Your task to perform on an android device: clear all cookies in the chrome app Image 0: 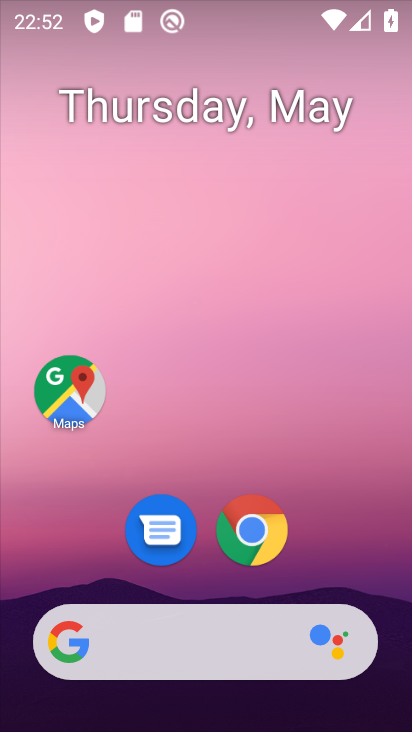
Step 0: click (254, 530)
Your task to perform on an android device: clear all cookies in the chrome app Image 1: 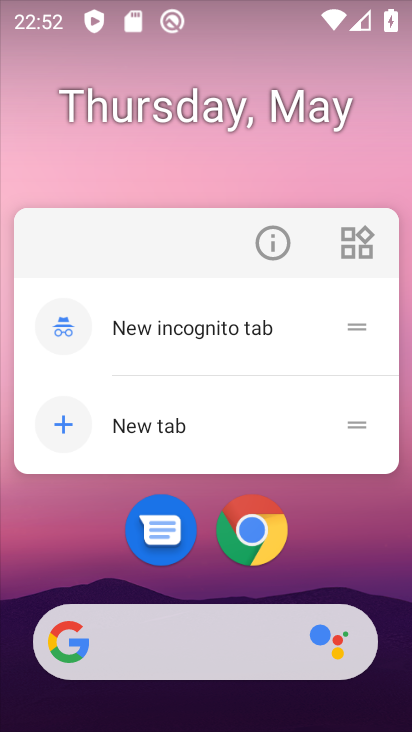
Step 1: click (254, 530)
Your task to perform on an android device: clear all cookies in the chrome app Image 2: 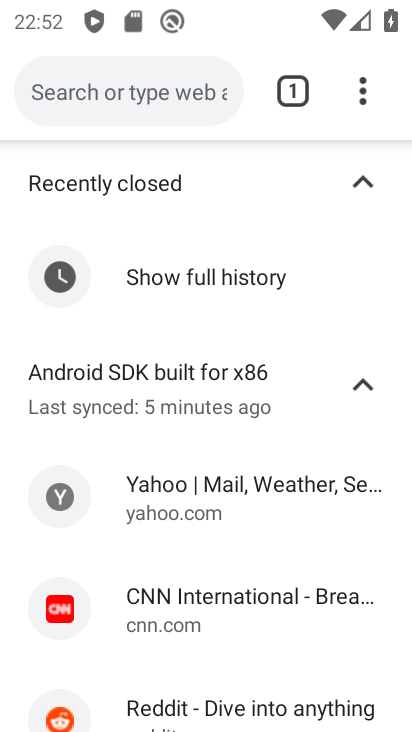
Step 2: click (388, 97)
Your task to perform on an android device: clear all cookies in the chrome app Image 3: 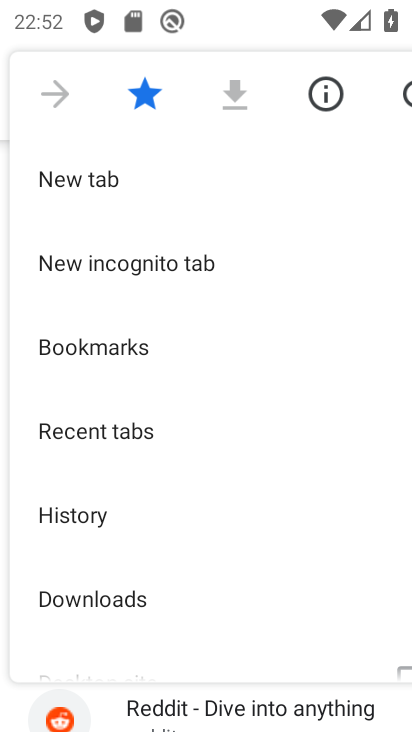
Step 3: drag from (132, 504) to (163, 417)
Your task to perform on an android device: clear all cookies in the chrome app Image 4: 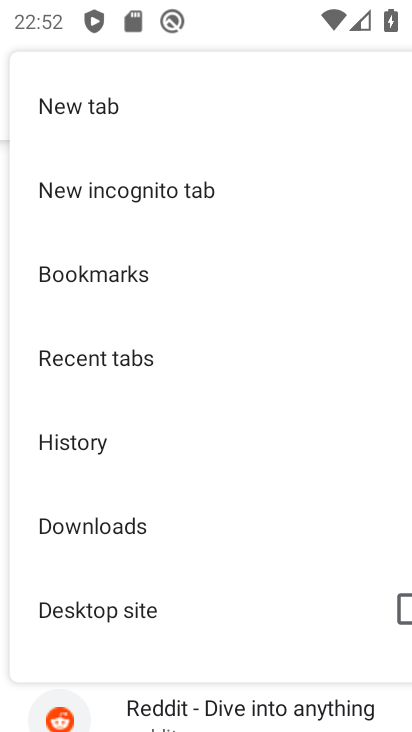
Step 4: drag from (170, 591) to (207, 472)
Your task to perform on an android device: clear all cookies in the chrome app Image 5: 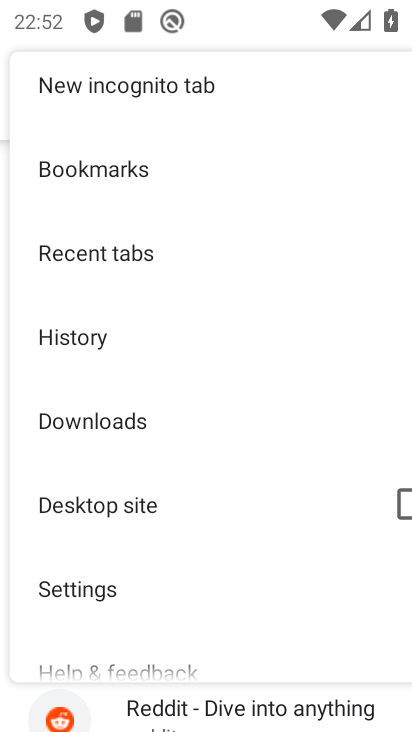
Step 5: click (90, 583)
Your task to perform on an android device: clear all cookies in the chrome app Image 6: 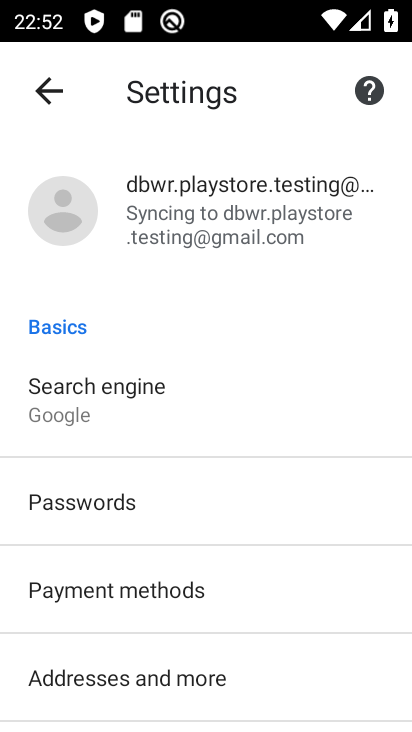
Step 6: drag from (185, 580) to (256, 456)
Your task to perform on an android device: clear all cookies in the chrome app Image 7: 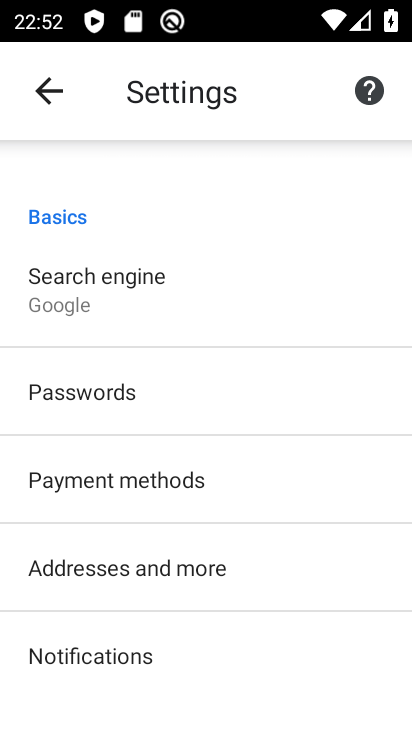
Step 7: drag from (202, 593) to (276, 483)
Your task to perform on an android device: clear all cookies in the chrome app Image 8: 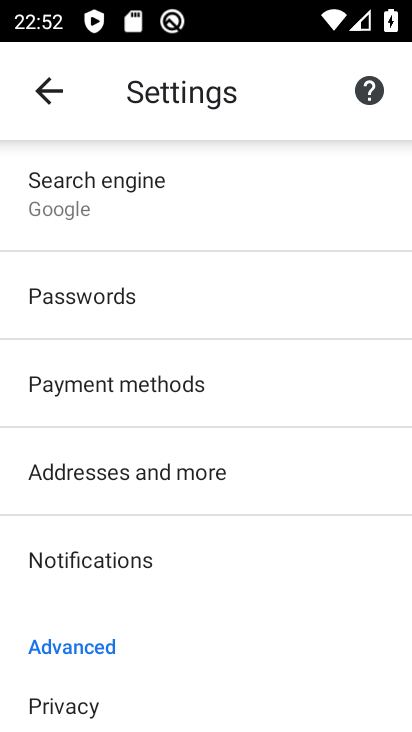
Step 8: drag from (201, 584) to (239, 424)
Your task to perform on an android device: clear all cookies in the chrome app Image 9: 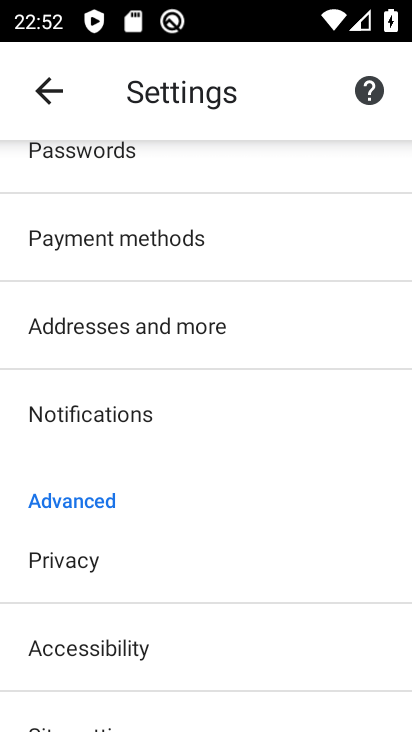
Step 9: click (54, 560)
Your task to perform on an android device: clear all cookies in the chrome app Image 10: 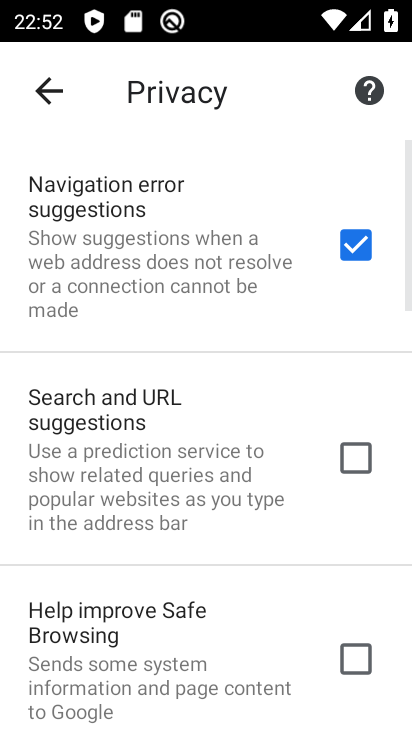
Step 10: drag from (125, 651) to (180, 429)
Your task to perform on an android device: clear all cookies in the chrome app Image 11: 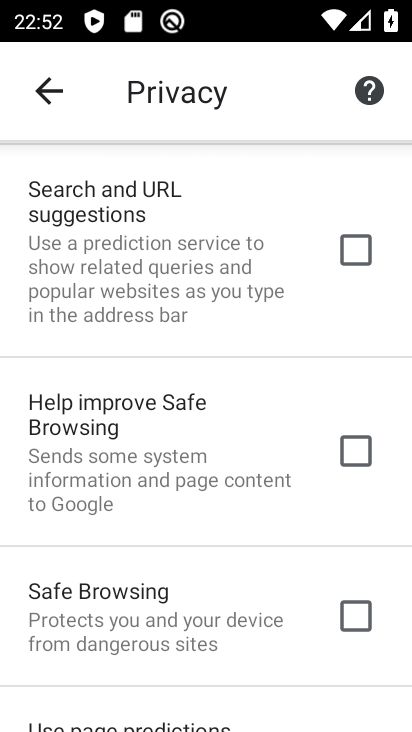
Step 11: drag from (125, 608) to (209, 396)
Your task to perform on an android device: clear all cookies in the chrome app Image 12: 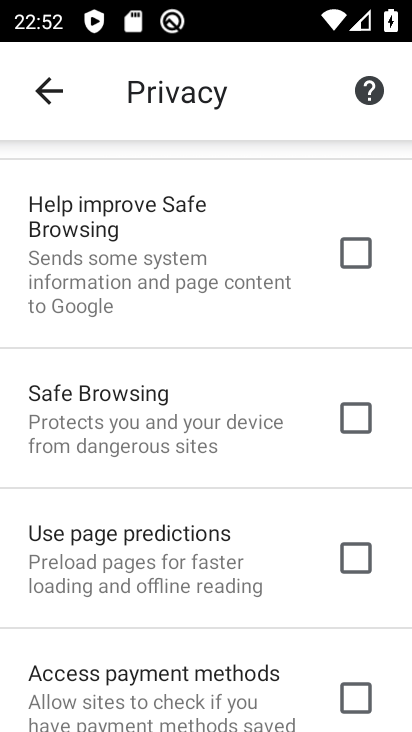
Step 12: drag from (153, 640) to (214, 441)
Your task to perform on an android device: clear all cookies in the chrome app Image 13: 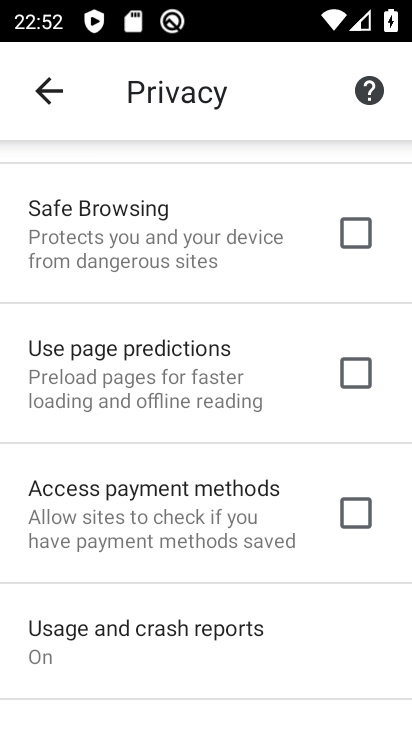
Step 13: drag from (155, 653) to (225, 438)
Your task to perform on an android device: clear all cookies in the chrome app Image 14: 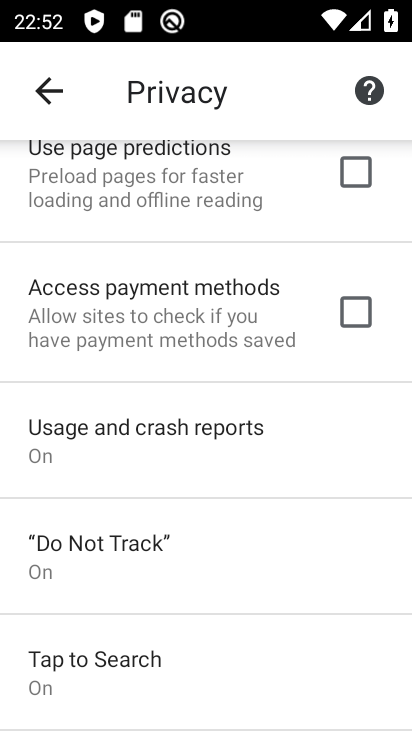
Step 14: drag from (176, 685) to (234, 494)
Your task to perform on an android device: clear all cookies in the chrome app Image 15: 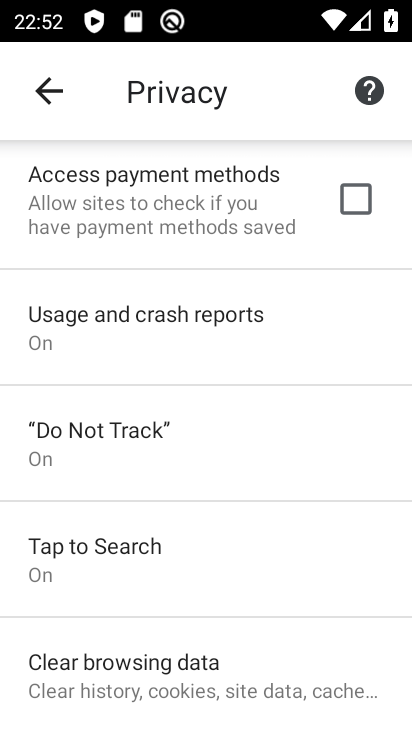
Step 15: click (206, 676)
Your task to perform on an android device: clear all cookies in the chrome app Image 16: 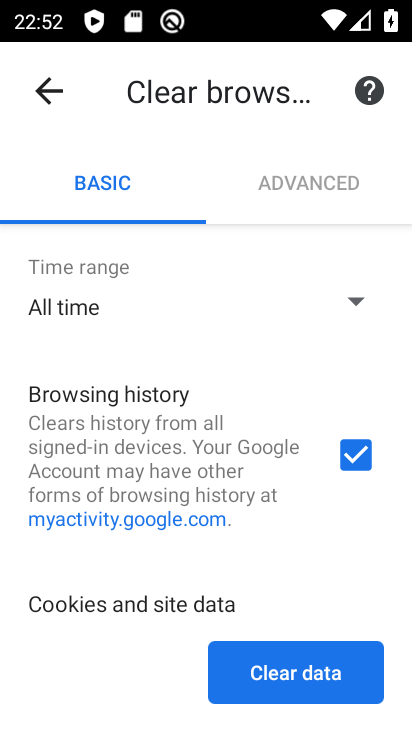
Step 16: drag from (211, 540) to (240, 371)
Your task to perform on an android device: clear all cookies in the chrome app Image 17: 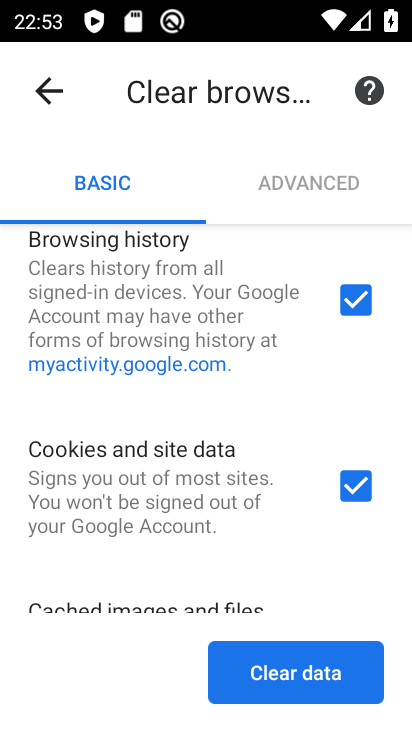
Step 17: drag from (234, 360) to (295, 536)
Your task to perform on an android device: clear all cookies in the chrome app Image 18: 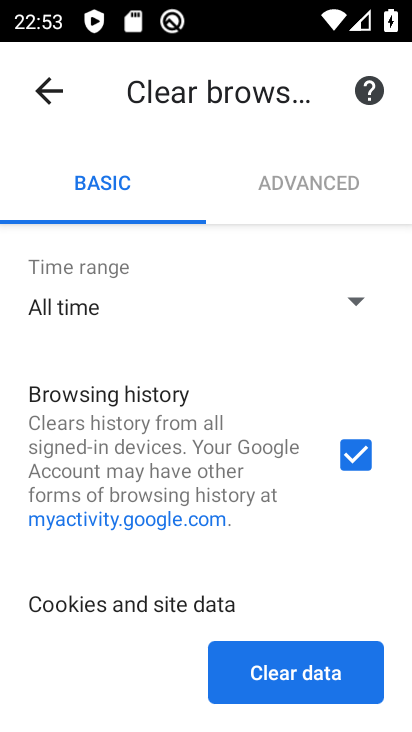
Step 18: click (355, 460)
Your task to perform on an android device: clear all cookies in the chrome app Image 19: 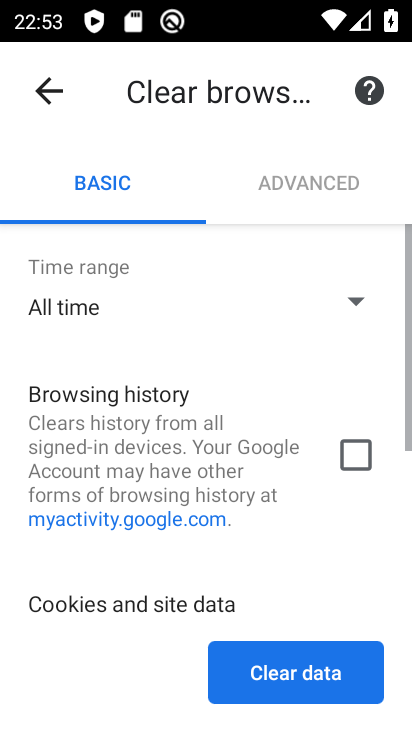
Step 19: drag from (277, 525) to (304, 303)
Your task to perform on an android device: clear all cookies in the chrome app Image 20: 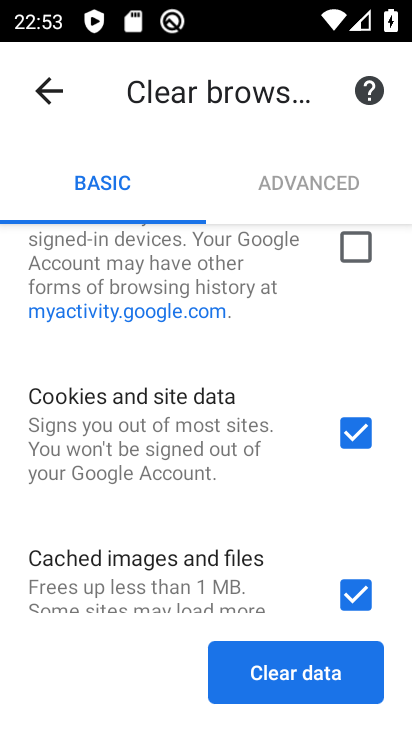
Step 20: drag from (265, 544) to (290, 579)
Your task to perform on an android device: clear all cookies in the chrome app Image 21: 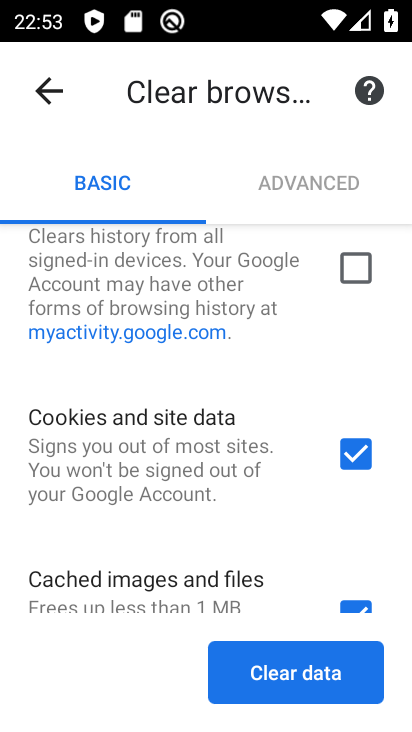
Step 21: click (355, 609)
Your task to perform on an android device: clear all cookies in the chrome app Image 22: 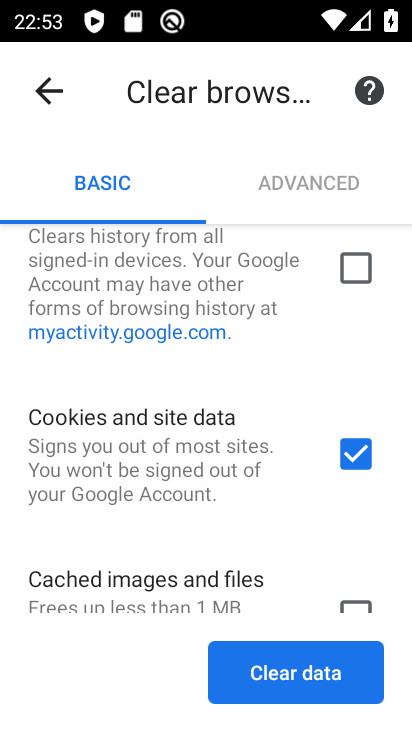
Step 22: click (276, 677)
Your task to perform on an android device: clear all cookies in the chrome app Image 23: 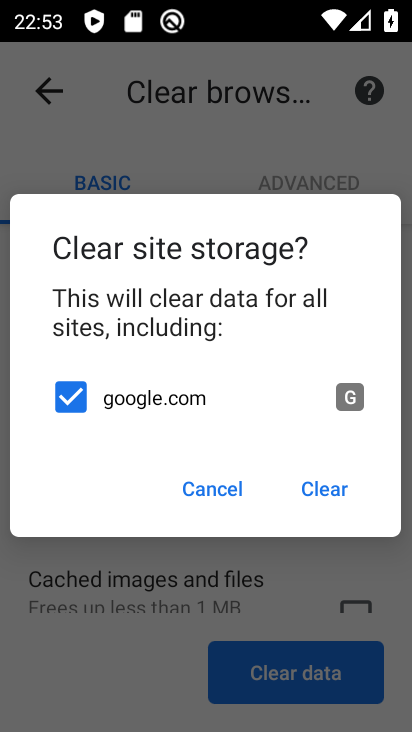
Step 23: click (322, 494)
Your task to perform on an android device: clear all cookies in the chrome app Image 24: 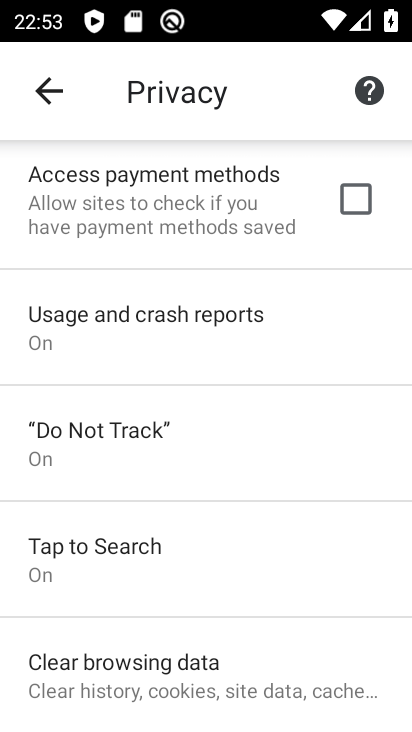
Step 24: task complete